Your task to perform on an android device: turn off priority inbox in the gmail app Image 0: 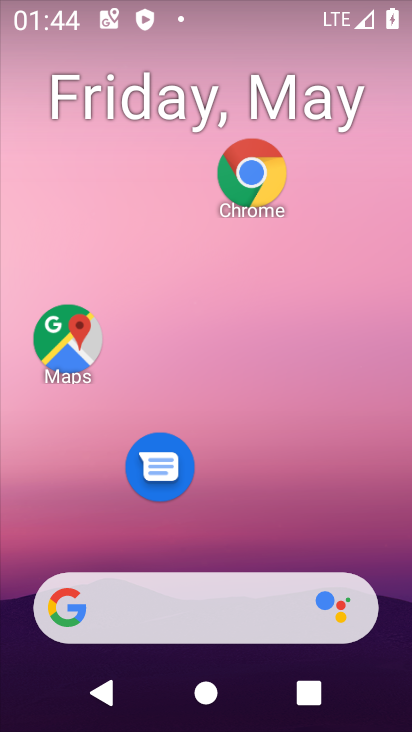
Step 0: drag from (288, 592) to (320, 189)
Your task to perform on an android device: turn off priority inbox in the gmail app Image 1: 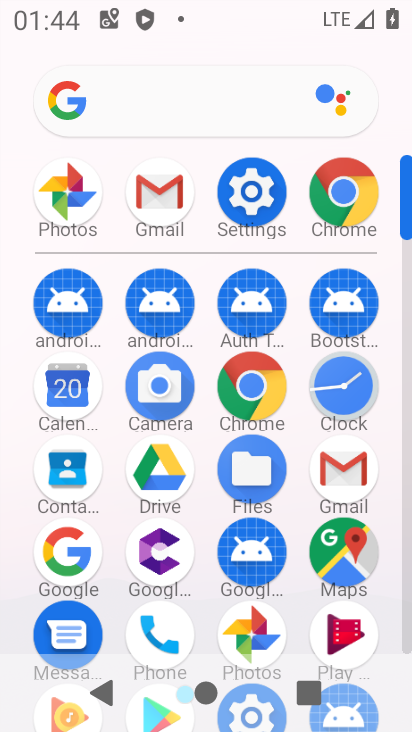
Step 1: click (160, 209)
Your task to perform on an android device: turn off priority inbox in the gmail app Image 2: 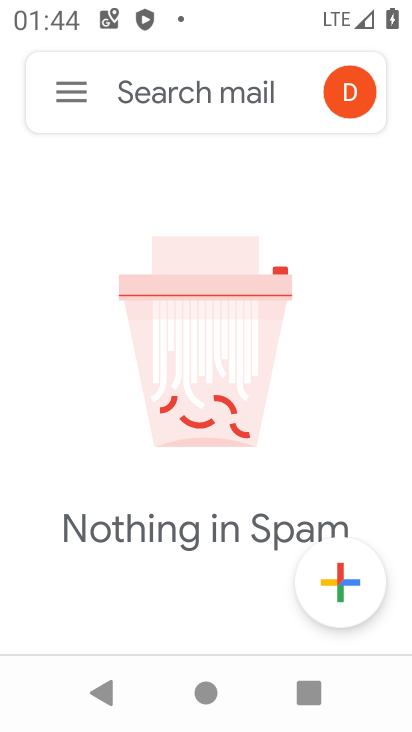
Step 2: click (69, 83)
Your task to perform on an android device: turn off priority inbox in the gmail app Image 3: 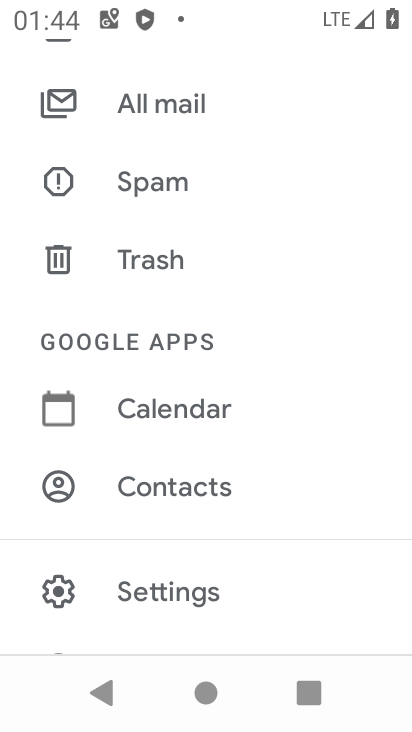
Step 3: click (151, 598)
Your task to perform on an android device: turn off priority inbox in the gmail app Image 4: 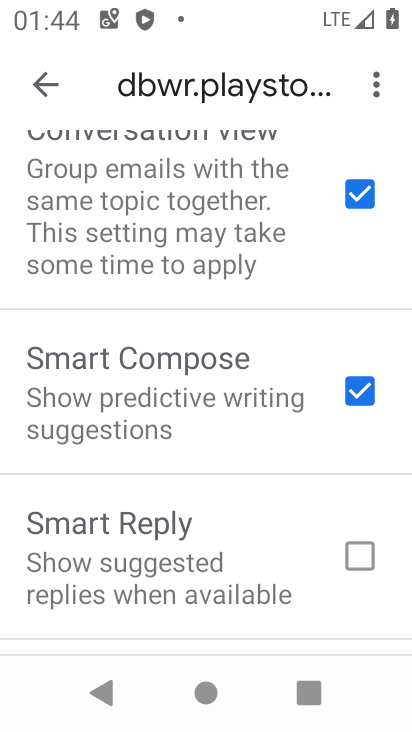
Step 4: drag from (145, 266) to (116, 526)
Your task to perform on an android device: turn off priority inbox in the gmail app Image 5: 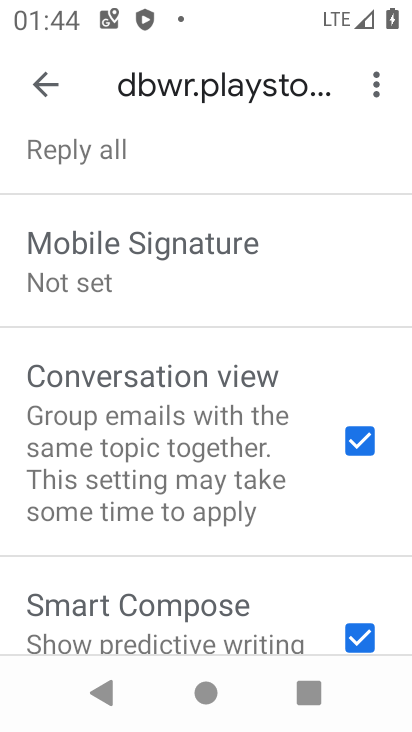
Step 5: click (41, 83)
Your task to perform on an android device: turn off priority inbox in the gmail app Image 6: 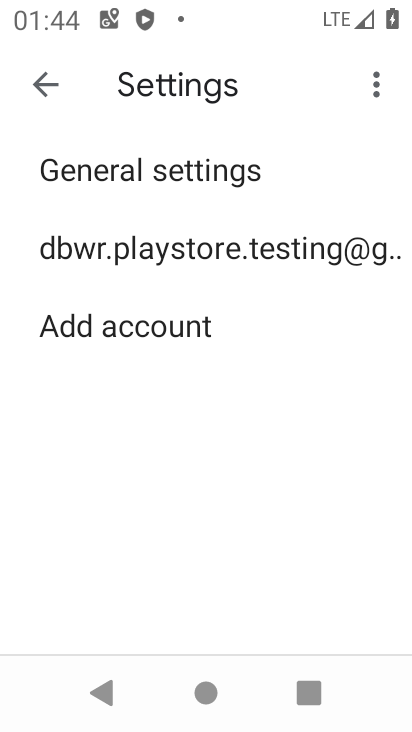
Step 6: click (181, 278)
Your task to perform on an android device: turn off priority inbox in the gmail app Image 7: 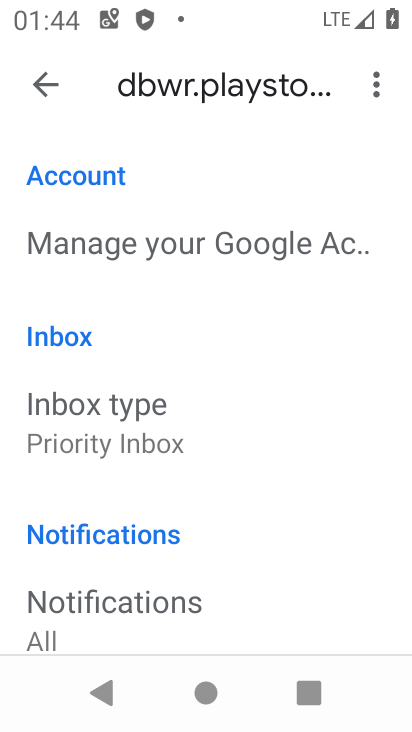
Step 7: click (123, 432)
Your task to perform on an android device: turn off priority inbox in the gmail app Image 8: 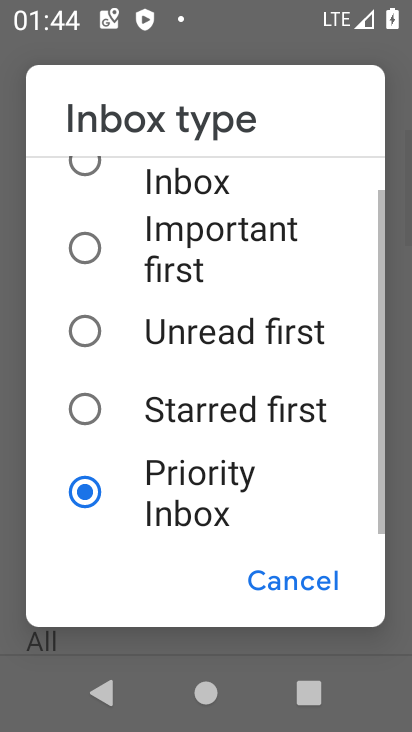
Step 8: drag from (181, 191) to (206, 332)
Your task to perform on an android device: turn off priority inbox in the gmail app Image 9: 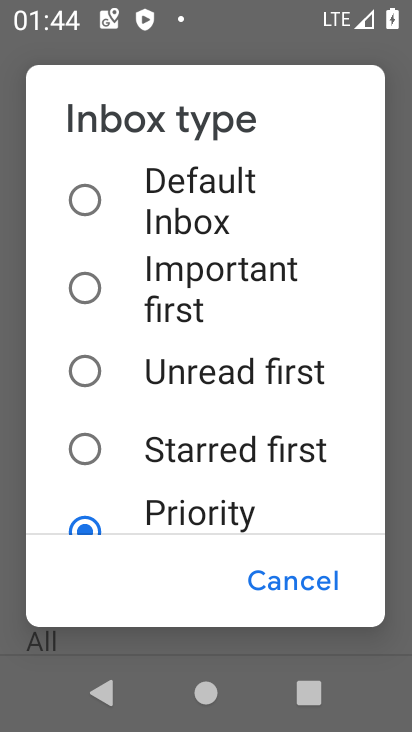
Step 9: click (167, 181)
Your task to perform on an android device: turn off priority inbox in the gmail app Image 10: 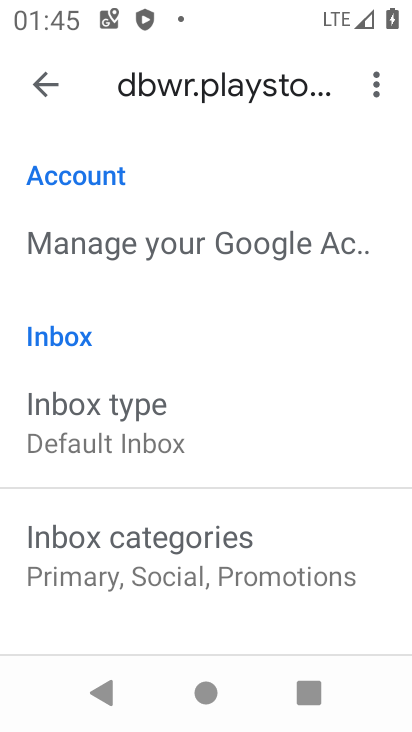
Step 10: task complete